Your task to perform on an android device: Go to Maps Image 0: 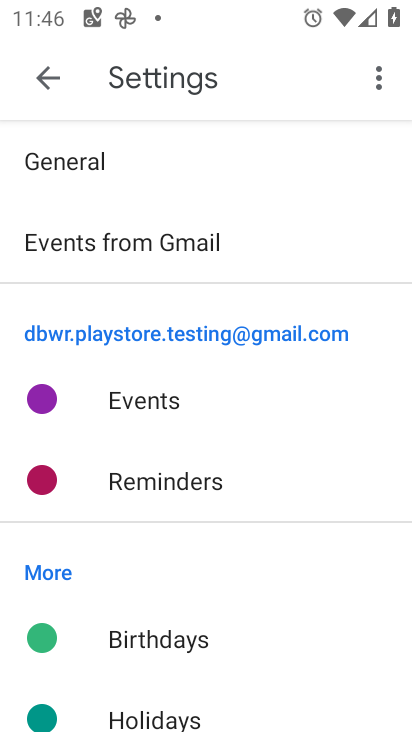
Step 0: press home button
Your task to perform on an android device: Go to Maps Image 1: 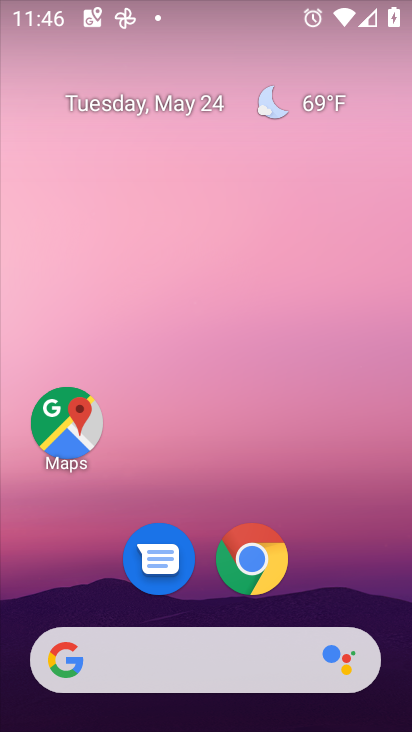
Step 1: drag from (392, 658) to (281, 58)
Your task to perform on an android device: Go to Maps Image 2: 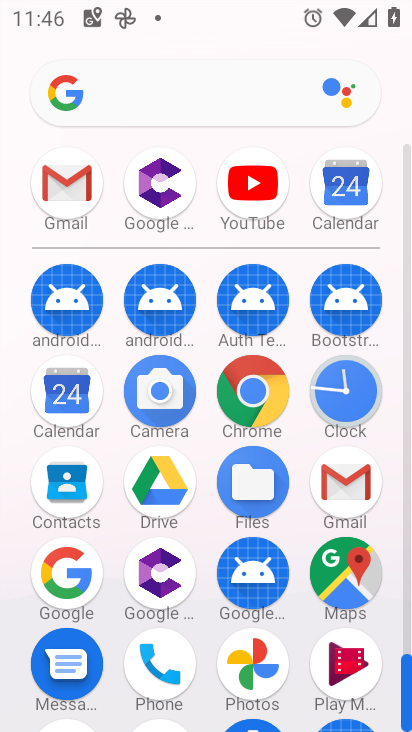
Step 2: click (344, 579)
Your task to perform on an android device: Go to Maps Image 3: 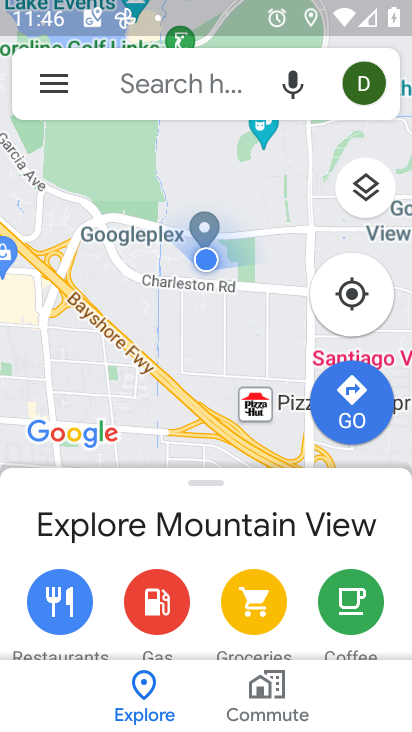
Step 3: task complete